Your task to perform on an android device: turn off notifications settings in the gmail app Image 0: 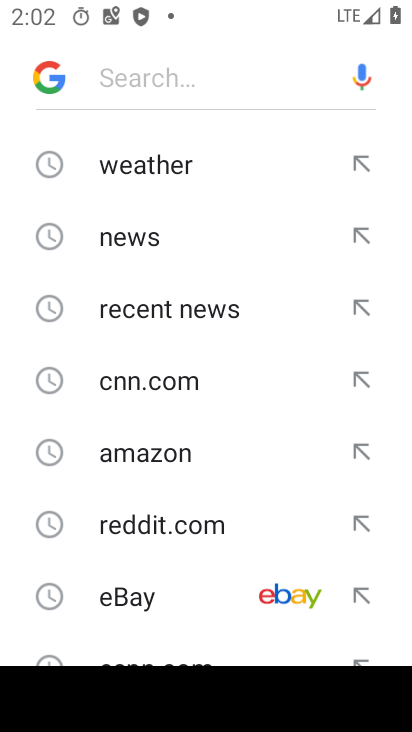
Step 0: press home button
Your task to perform on an android device: turn off notifications settings in the gmail app Image 1: 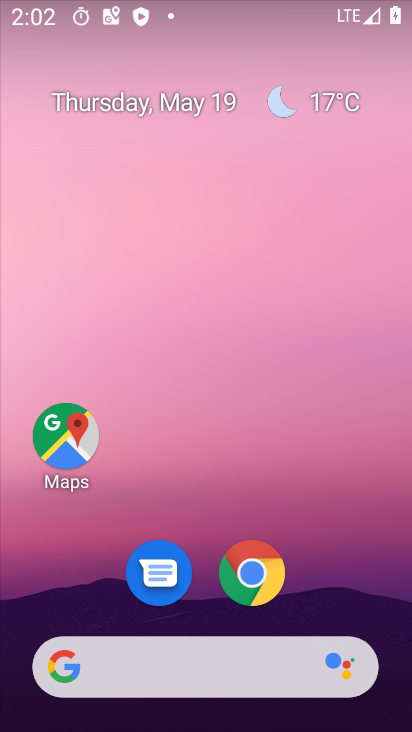
Step 1: drag from (204, 623) to (297, 114)
Your task to perform on an android device: turn off notifications settings in the gmail app Image 2: 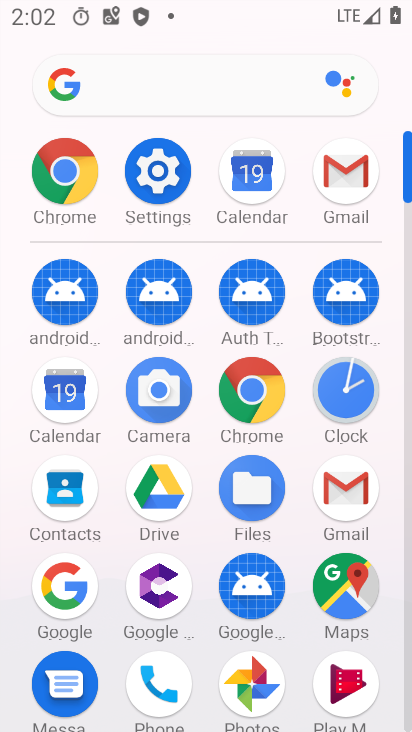
Step 2: click (350, 177)
Your task to perform on an android device: turn off notifications settings in the gmail app Image 3: 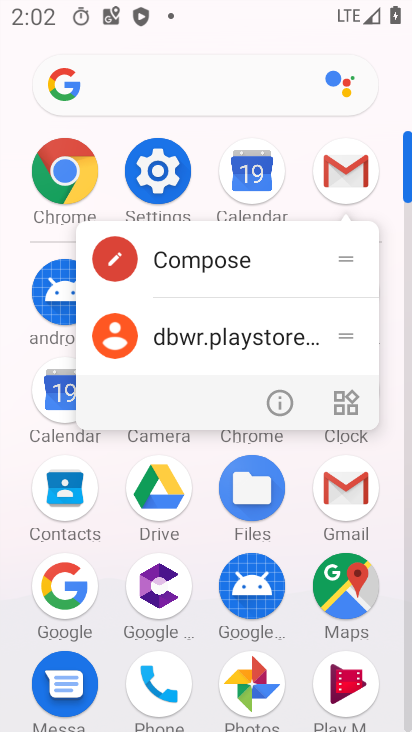
Step 3: click (281, 397)
Your task to perform on an android device: turn off notifications settings in the gmail app Image 4: 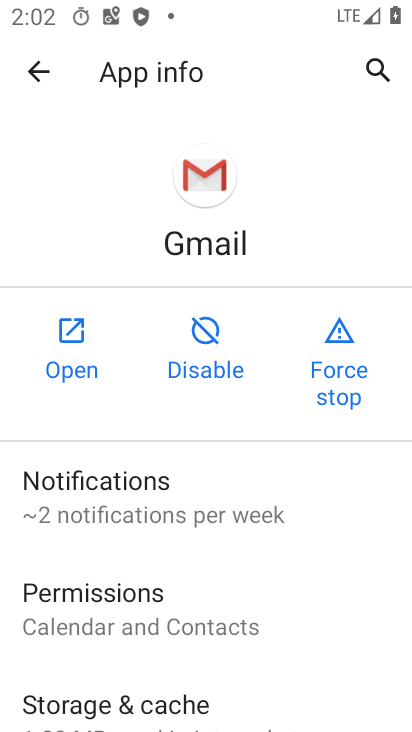
Step 4: click (59, 502)
Your task to perform on an android device: turn off notifications settings in the gmail app Image 5: 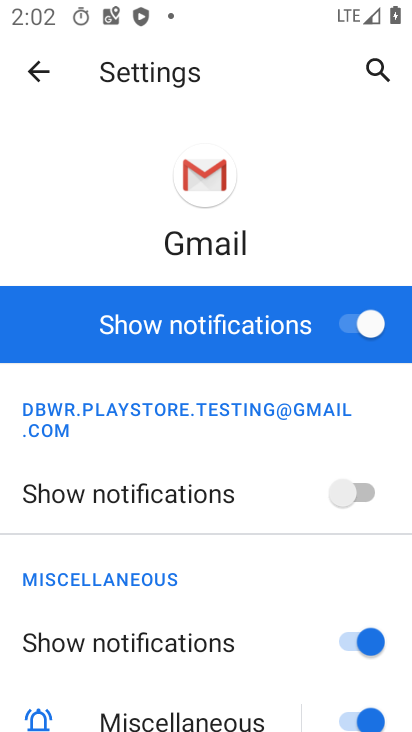
Step 5: click (355, 330)
Your task to perform on an android device: turn off notifications settings in the gmail app Image 6: 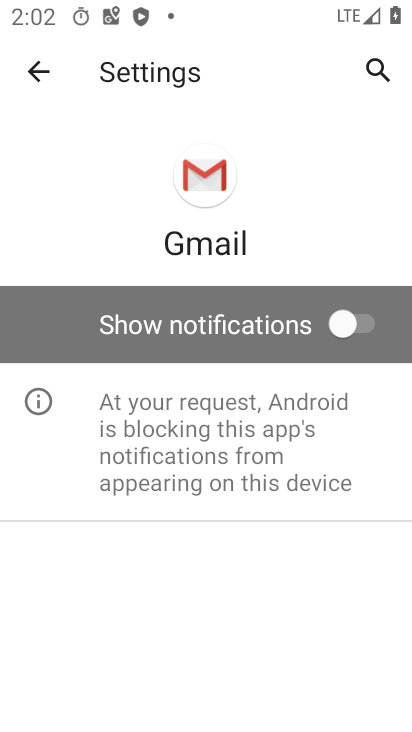
Step 6: task complete